Your task to perform on an android device: Search for Mexican restaurants on Maps Image 0: 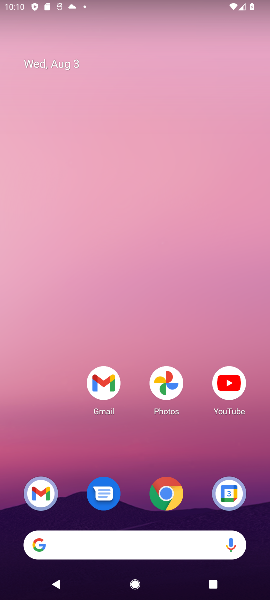
Step 0: press home button
Your task to perform on an android device: Search for Mexican restaurants on Maps Image 1: 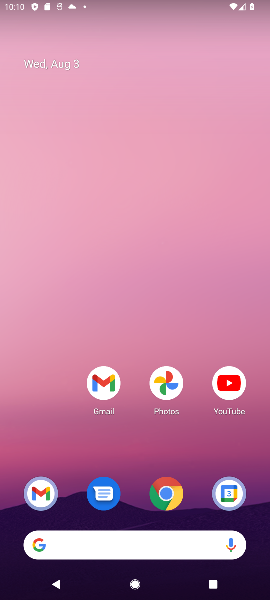
Step 1: drag from (141, 461) to (181, 15)
Your task to perform on an android device: Search for Mexican restaurants on Maps Image 2: 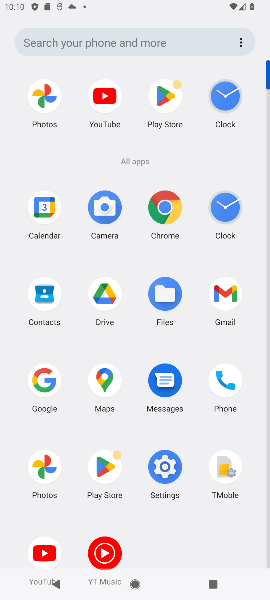
Step 2: click (101, 376)
Your task to perform on an android device: Search for Mexican restaurants on Maps Image 3: 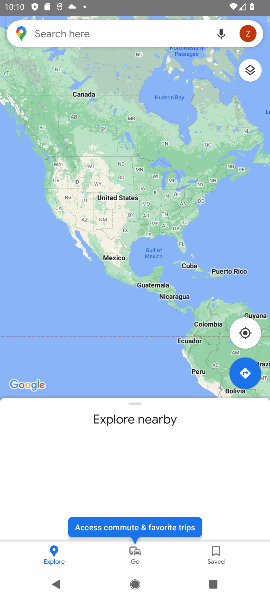
Step 3: click (82, 27)
Your task to perform on an android device: Search for Mexican restaurants on Maps Image 4: 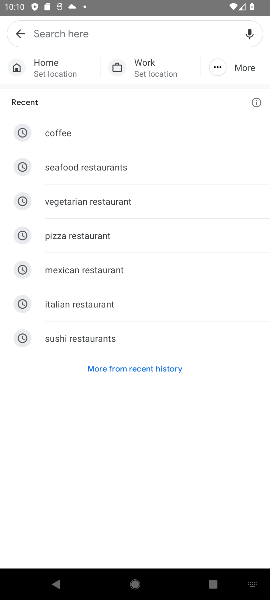
Step 4: click (71, 269)
Your task to perform on an android device: Search for Mexican restaurants on Maps Image 5: 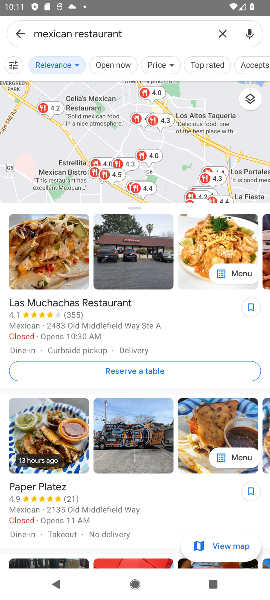
Step 5: task complete